Your task to perform on an android device: Check the news Image 0: 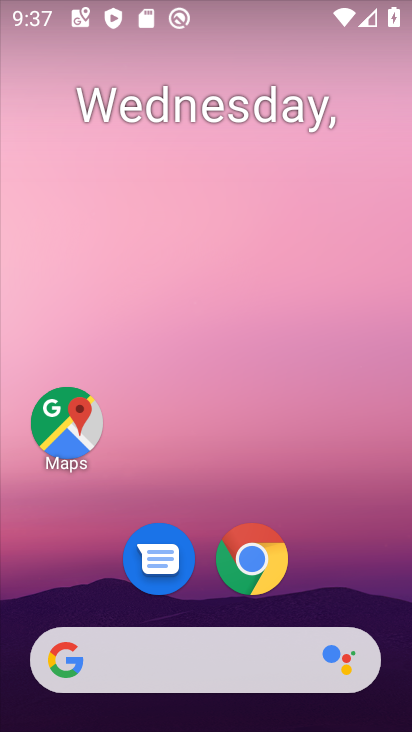
Step 0: click (200, 677)
Your task to perform on an android device: Check the news Image 1: 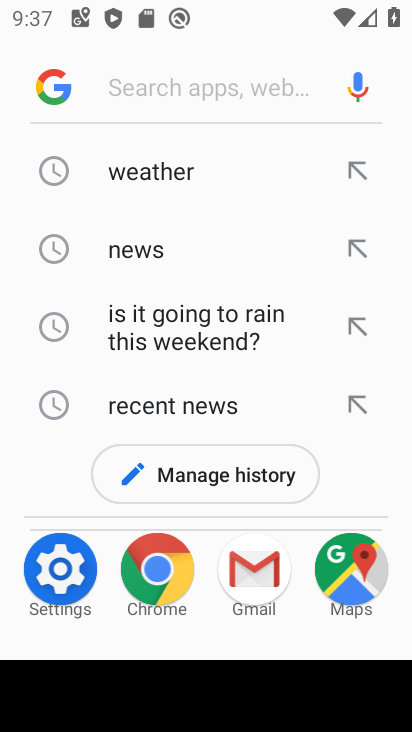
Step 1: click (135, 245)
Your task to perform on an android device: Check the news Image 2: 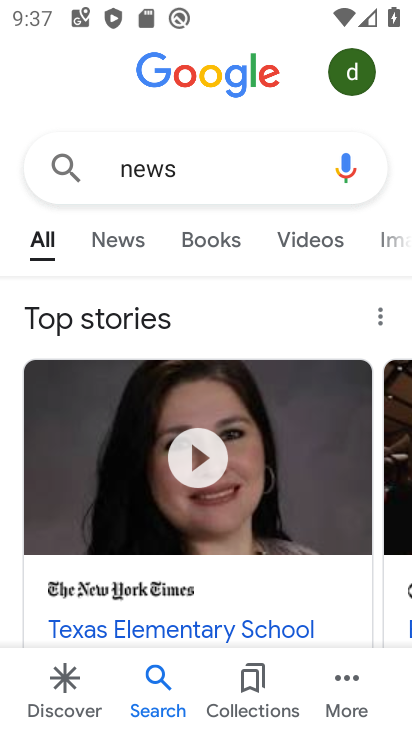
Step 2: task complete